Your task to perform on an android device: Open calendar and show me the first week of next month Image 0: 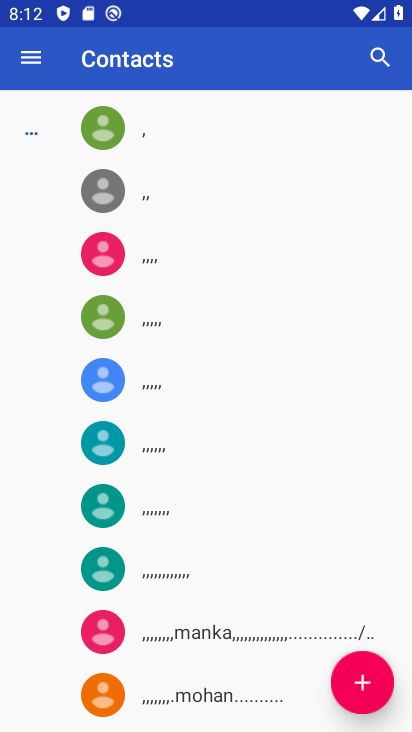
Step 0: press home button
Your task to perform on an android device: Open calendar and show me the first week of next month Image 1: 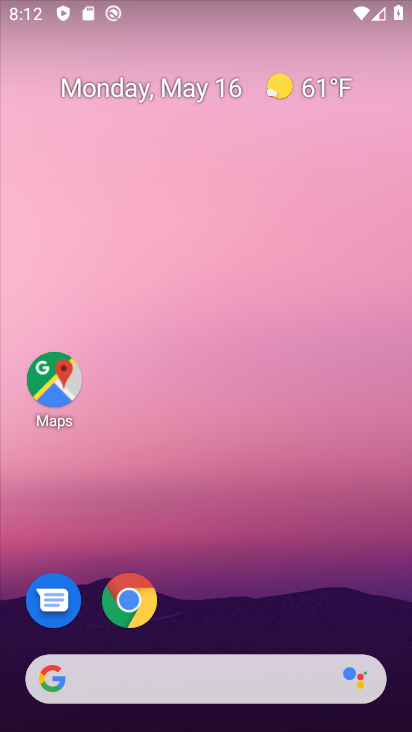
Step 1: drag from (189, 626) to (179, 51)
Your task to perform on an android device: Open calendar and show me the first week of next month Image 2: 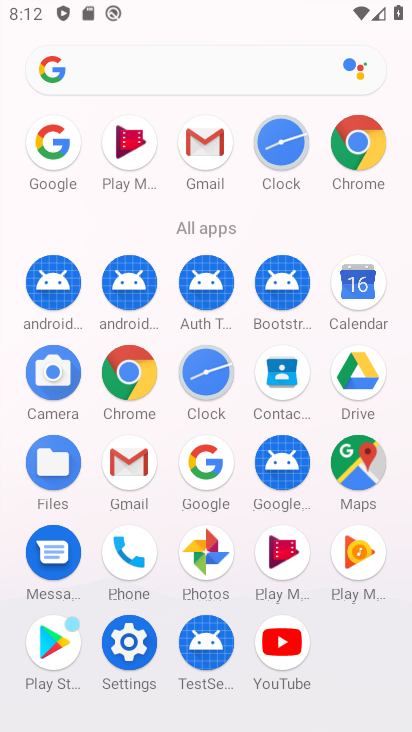
Step 2: click (361, 277)
Your task to perform on an android device: Open calendar and show me the first week of next month Image 3: 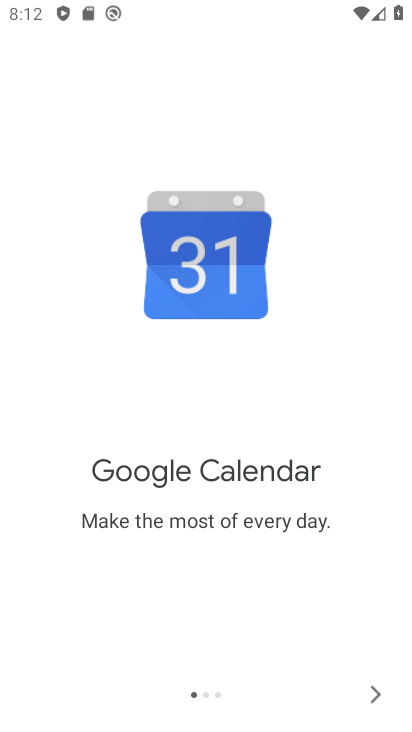
Step 3: click (381, 682)
Your task to perform on an android device: Open calendar and show me the first week of next month Image 4: 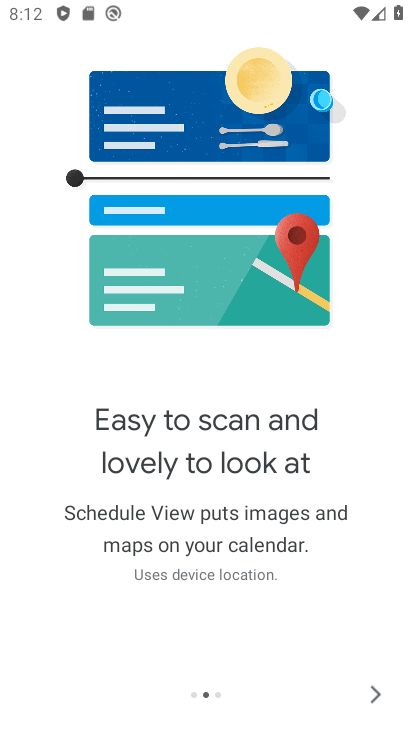
Step 4: click (368, 682)
Your task to perform on an android device: Open calendar and show me the first week of next month Image 5: 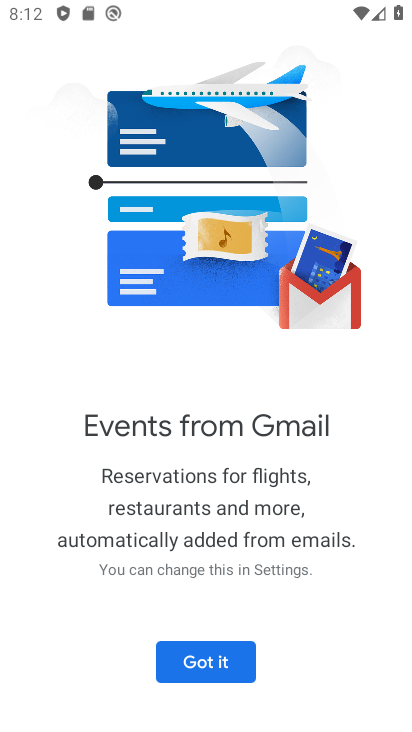
Step 5: click (208, 659)
Your task to perform on an android device: Open calendar and show me the first week of next month Image 6: 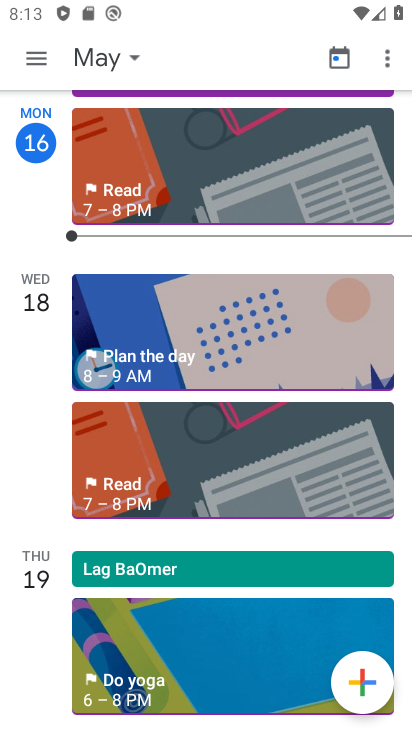
Step 6: click (111, 63)
Your task to perform on an android device: Open calendar and show me the first week of next month Image 7: 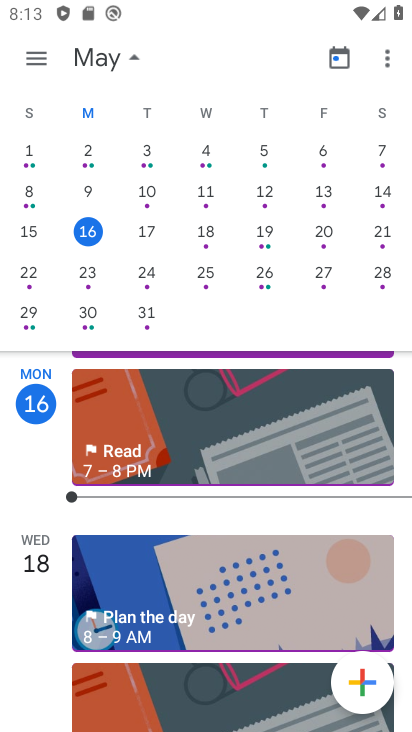
Step 7: task complete